Your task to perform on an android device: open wifi settings Image 0: 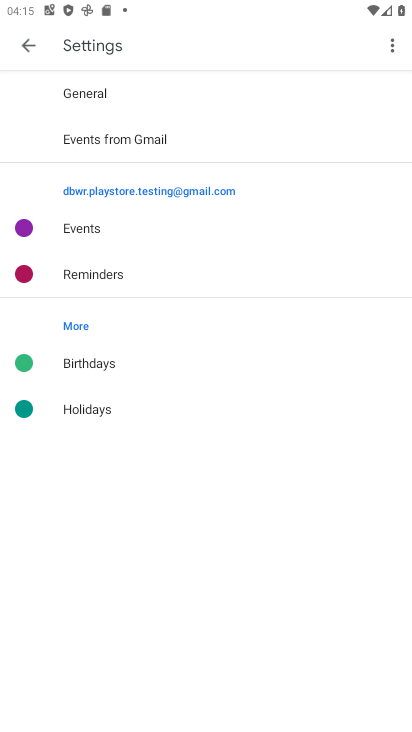
Step 0: press home button
Your task to perform on an android device: open wifi settings Image 1: 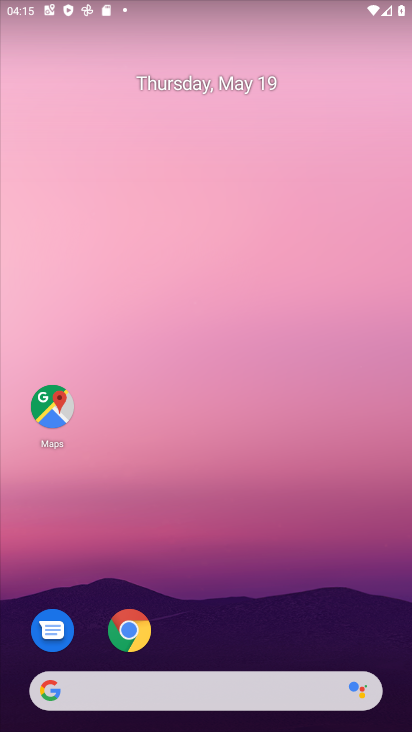
Step 1: drag from (365, 639) to (292, 105)
Your task to perform on an android device: open wifi settings Image 2: 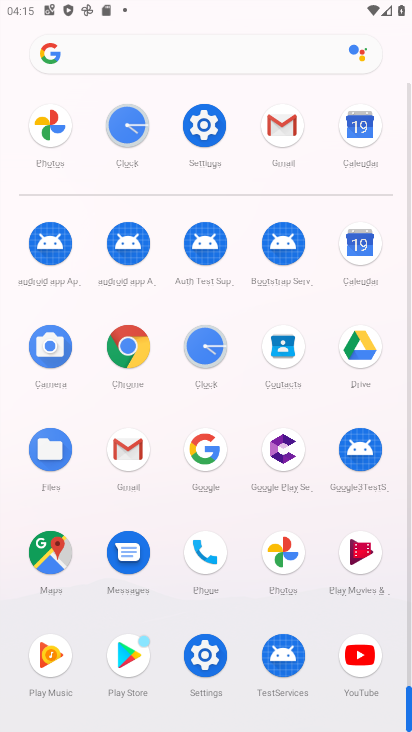
Step 2: click (203, 656)
Your task to perform on an android device: open wifi settings Image 3: 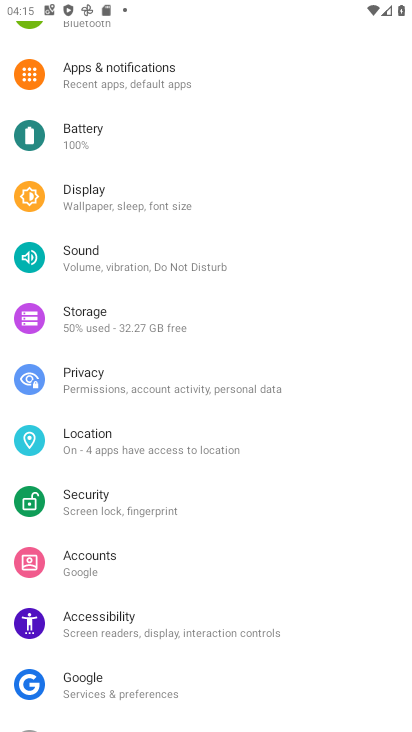
Step 3: drag from (387, 129) to (366, 411)
Your task to perform on an android device: open wifi settings Image 4: 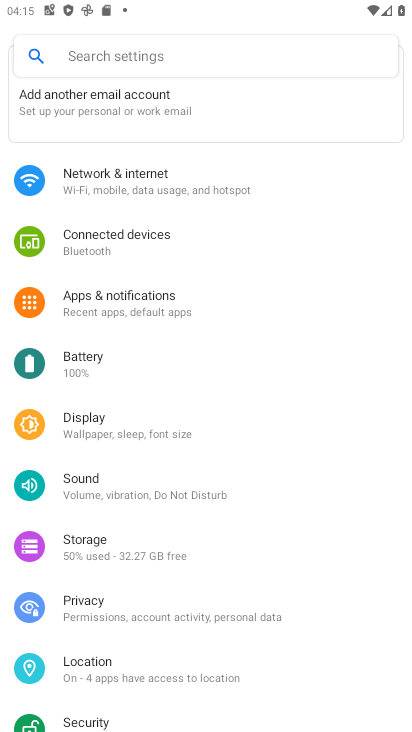
Step 4: click (94, 176)
Your task to perform on an android device: open wifi settings Image 5: 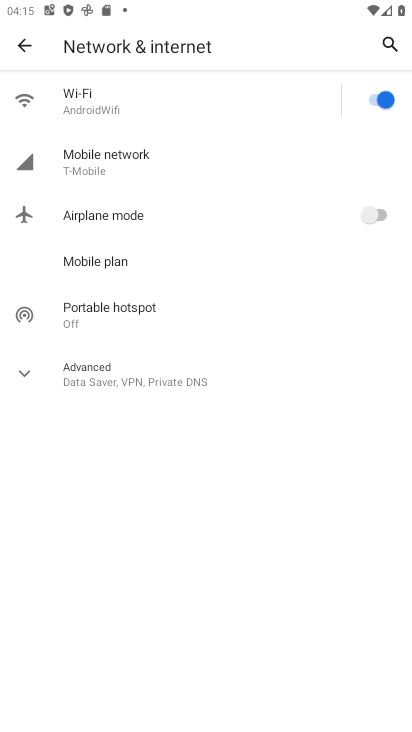
Step 5: click (78, 108)
Your task to perform on an android device: open wifi settings Image 6: 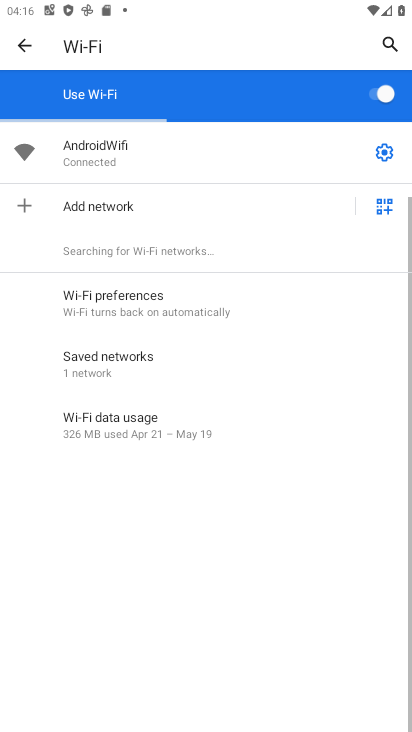
Step 6: task complete